Your task to perform on an android device: Turn on the flashlight Image 0: 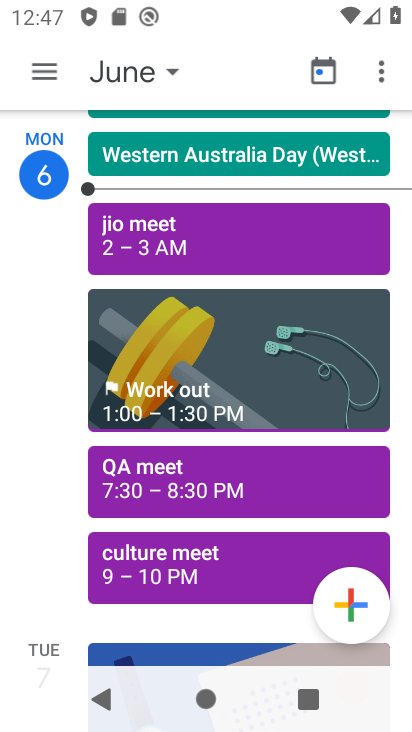
Step 0: drag from (263, 9) to (302, 493)
Your task to perform on an android device: Turn on the flashlight Image 1: 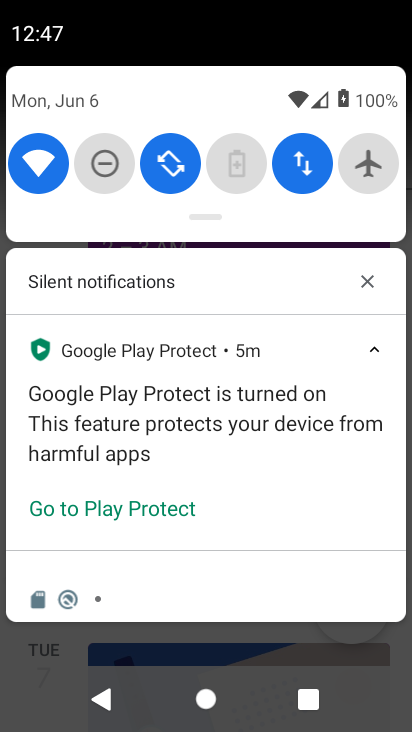
Step 1: drag from (307, 196) to (328, 661)
Your task to perform on an android device: Turn on the flashlight Image 2: 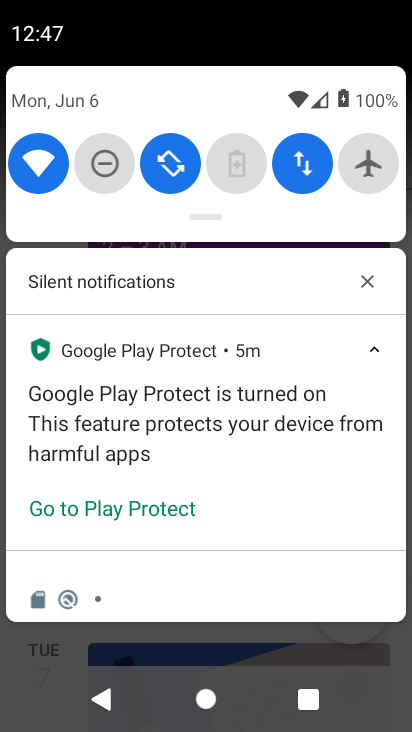
Step 2: drag from (327, 382) to (6, 370)
Your task to perform on an android device: Turn on the flashlight Image 3: 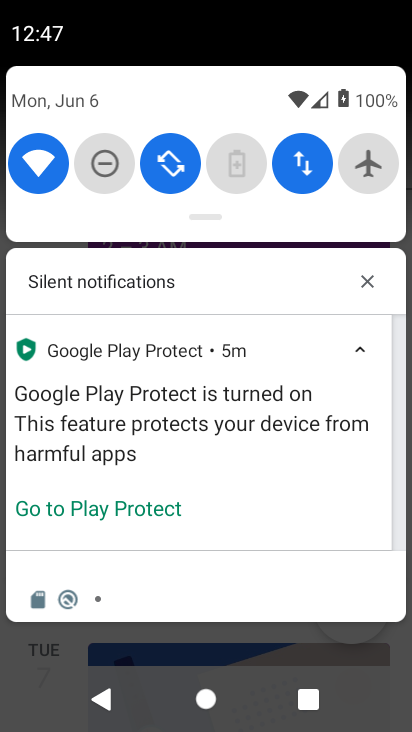
Step 3: drag from (290, 189) to (328, 579)
Your task to perform on an android device: Turn on the flashlight Image 4: 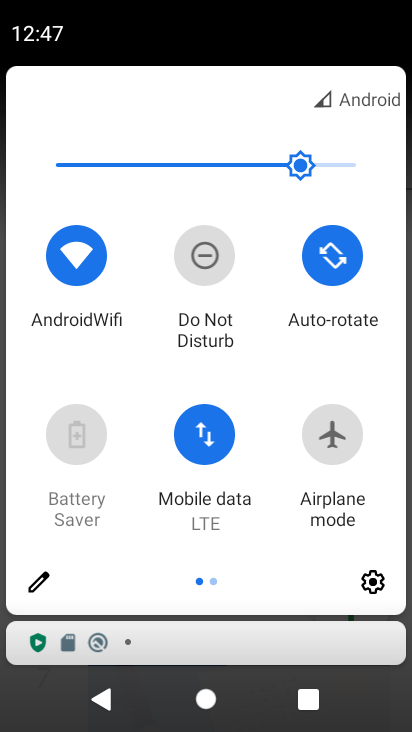
Step 4: drag from (341, 388) to (0, 543)
Your task to perform on an android device: Turn on the flashlight Image 5: 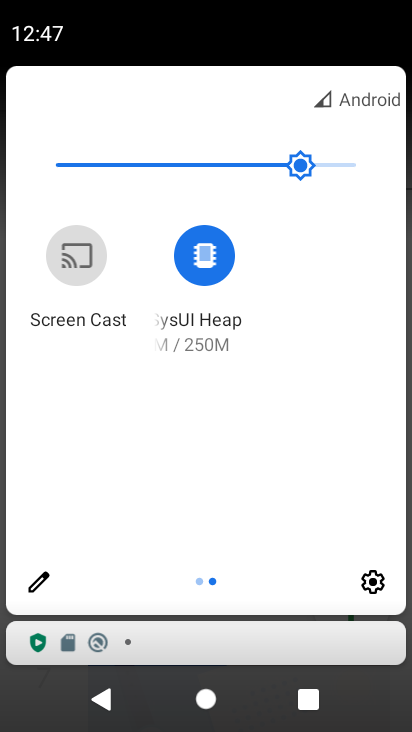
Step 5: click (40, 585)
Your task to perform on an android device: Turn on the flashlight Image 6: 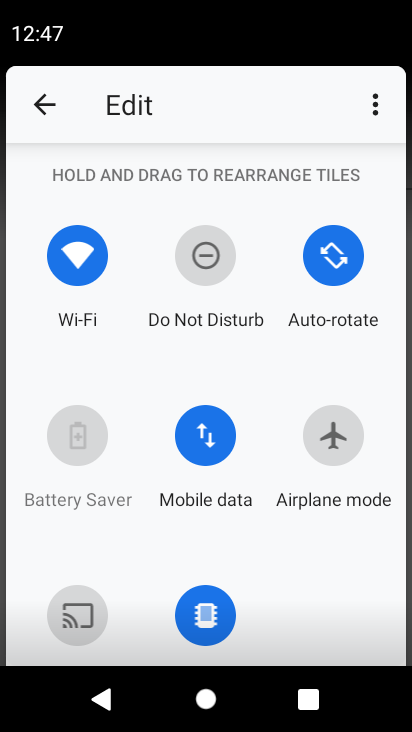
Step 6: task complete